Your task to perform on an android device: Open Google Chrome and open the bookmarks view Image 0: 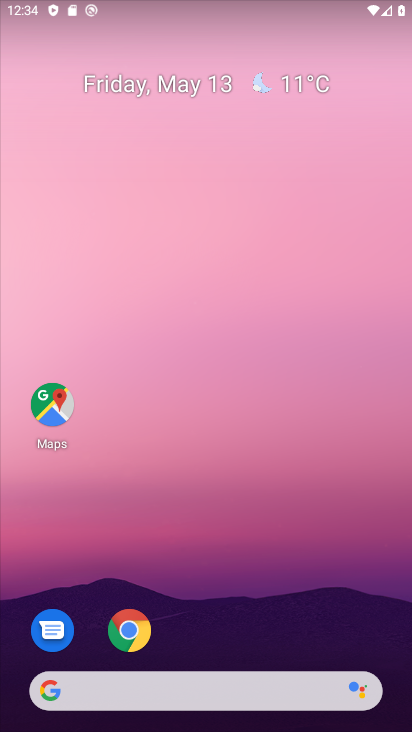
Step 0: drag from (252, 610) to (288, 193)
Your task to perform on an android device: Open Google Chrome and open the bookmarks view Image 1: 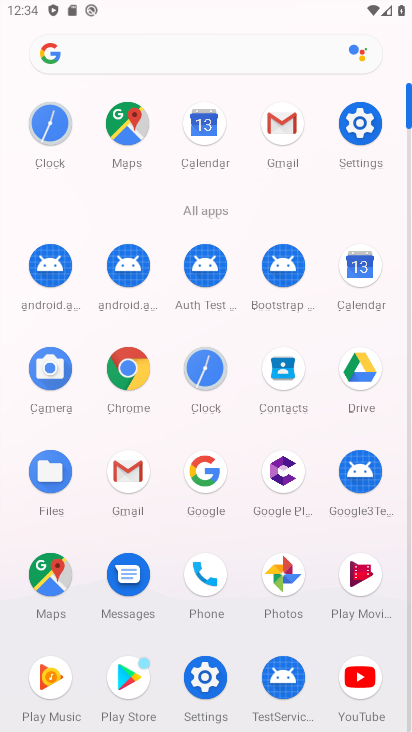
Step 1: click (140, 379)
Your task to perform on an android device: Open Google Chrome and open the bookmarks view Image 2: 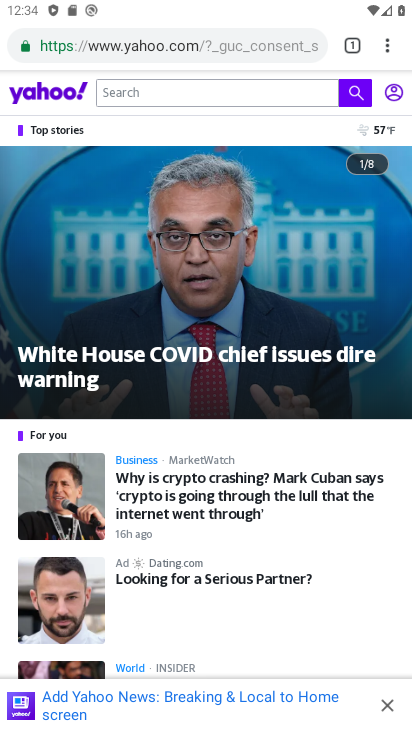
Step 2: click (385, 53)
Your task to perform on an android device: Open Google Chrome and open the bookmarks view Image 3: 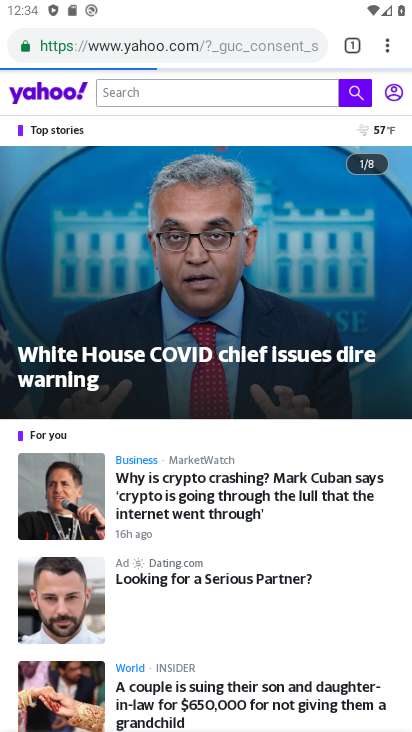
Step 3: click (383, 50)
Your task to perform on an android device: Open Google Chrome and open the bookmarks view Image 4: 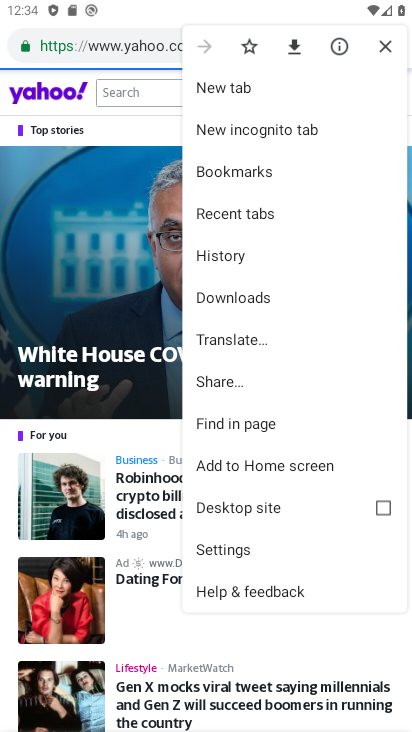
Step 4: click (291, 179)
Your task to perform on an android device: Open Google Chrome and open the bookmarks view Image 5: 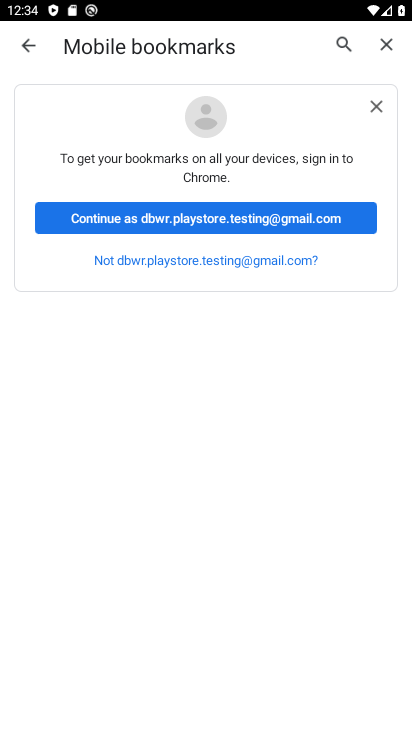
Step 5: click (294, 224)
Your task to perform on an android device: Open Google Chrome and open the bookmarks view Image 6: 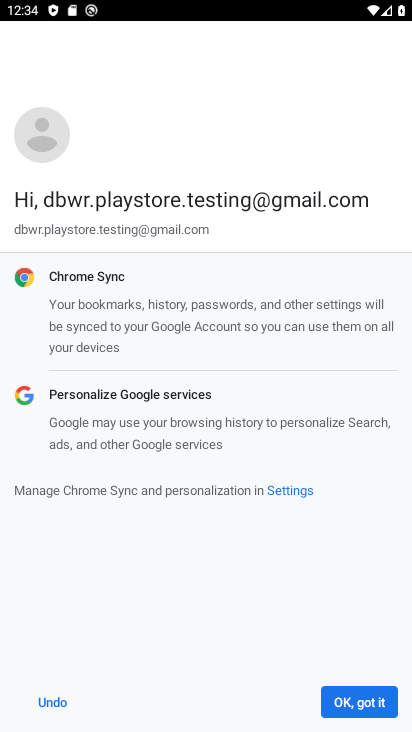
Step 6: click (382, 694)
Your task to perform on an android device: Open Google Chrome and open the bookmarks view Image 7: 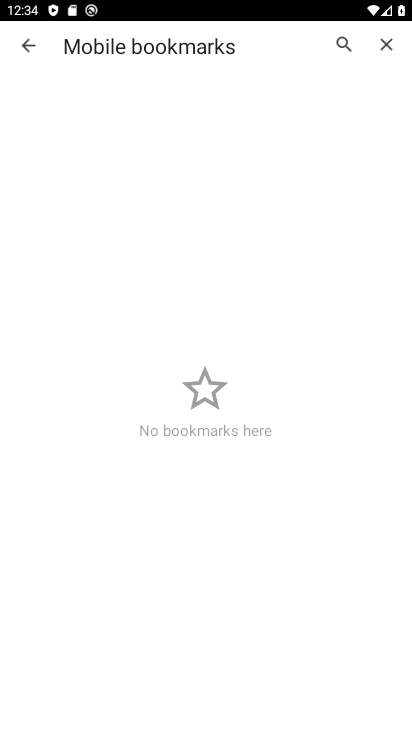
Step 7: task complete